Your task to perform on an android device: When is my next meeting? Image 0: 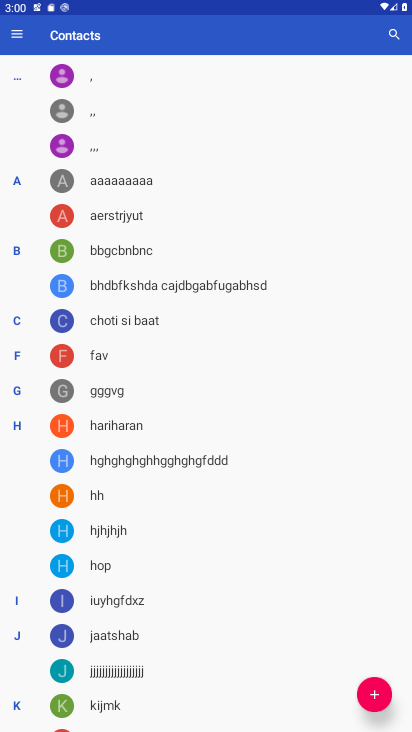
Step 0: press home button
Your task to perform on an android device: When is my next meeting? Image 1: 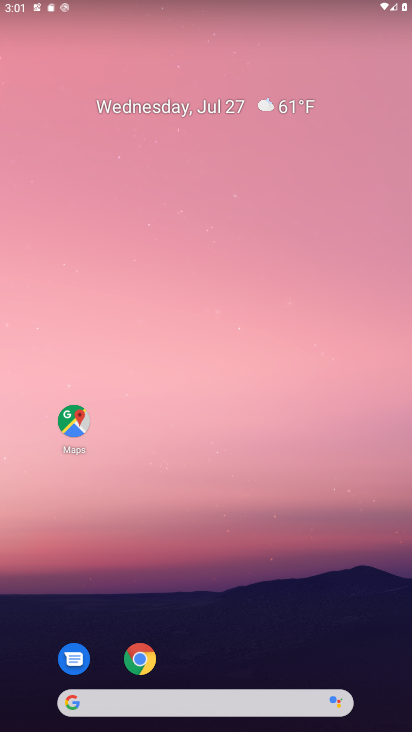
Step 1: drag from (200, 706) to (148, 386)
Your task to perform on an android device: When is my next meeting? Image 2: 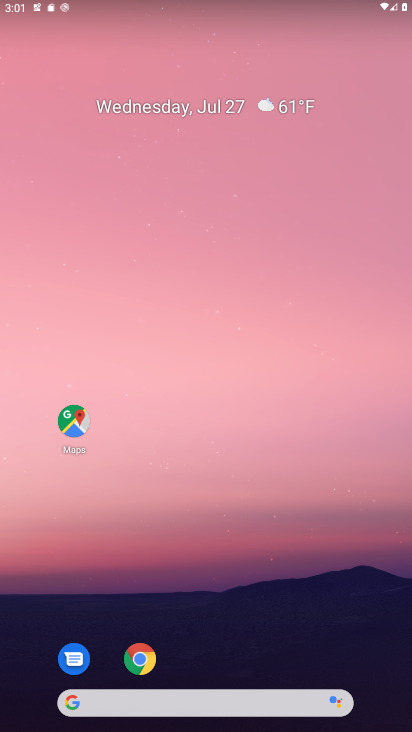
Step 2: drag from (204, 689) to (210, 94)
Your task to perform on an android device: When is my next meeting? Image 3: 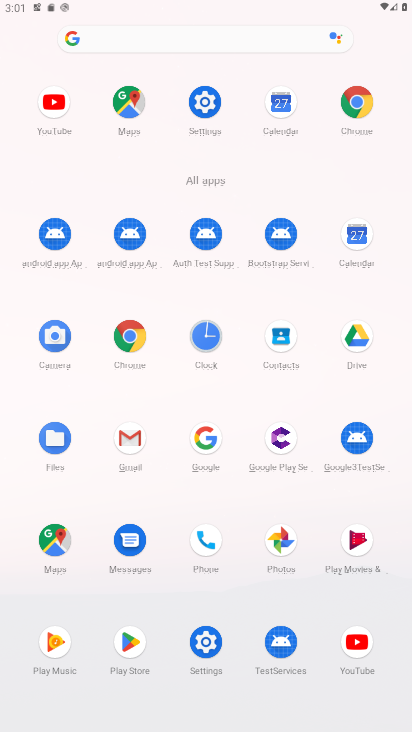
Step 3: click (355, 249)
Your task to perform on an android device: When is my next meeting? Image 4: 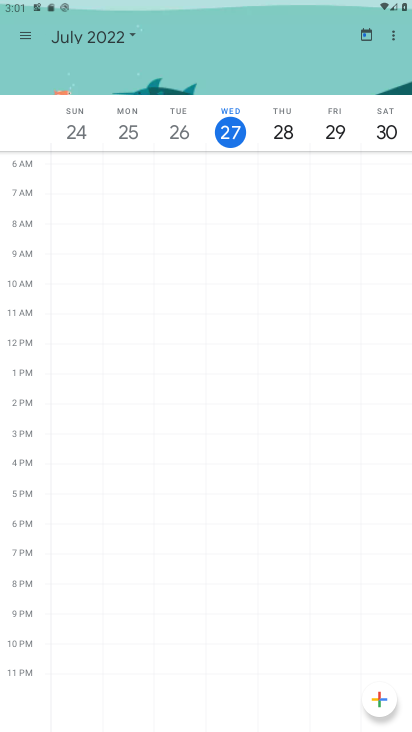
Step 4: click (24, 33)
Your task to perform on an android device: When is my next meeting? Image 5: 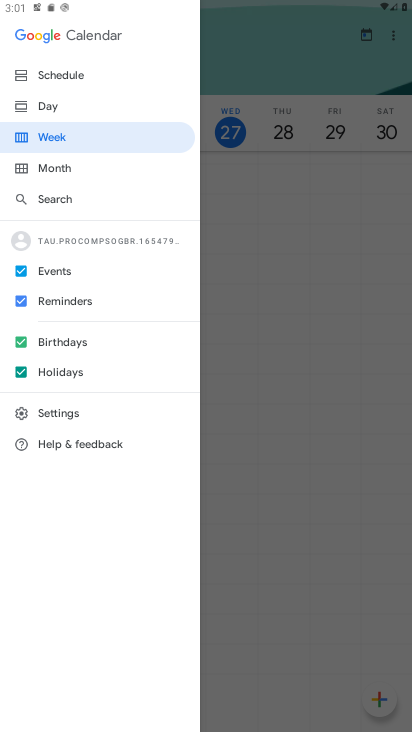
Step 5: click (74, 74)
Your task to perform on an android device: When is my next meeting? Image 6: 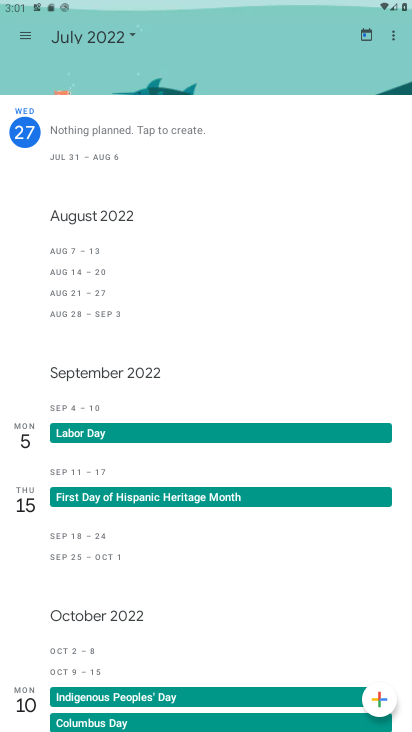
Step 6: task complete